Your task to perform on an android device: change the clock style Image 0: 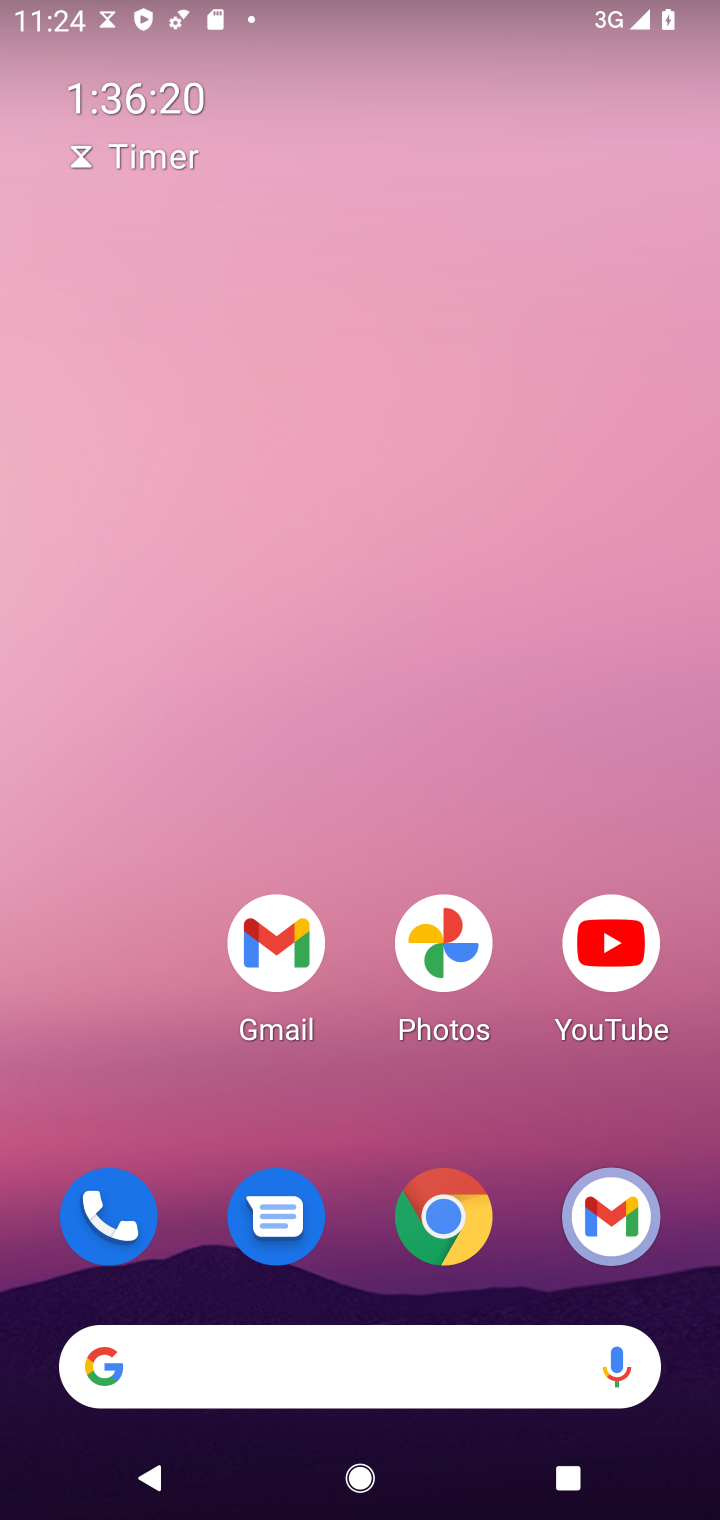
Step 0: drag from (130, 1065) to (244, 34)
Your task to perform on an android device: change the clock style Image 1: 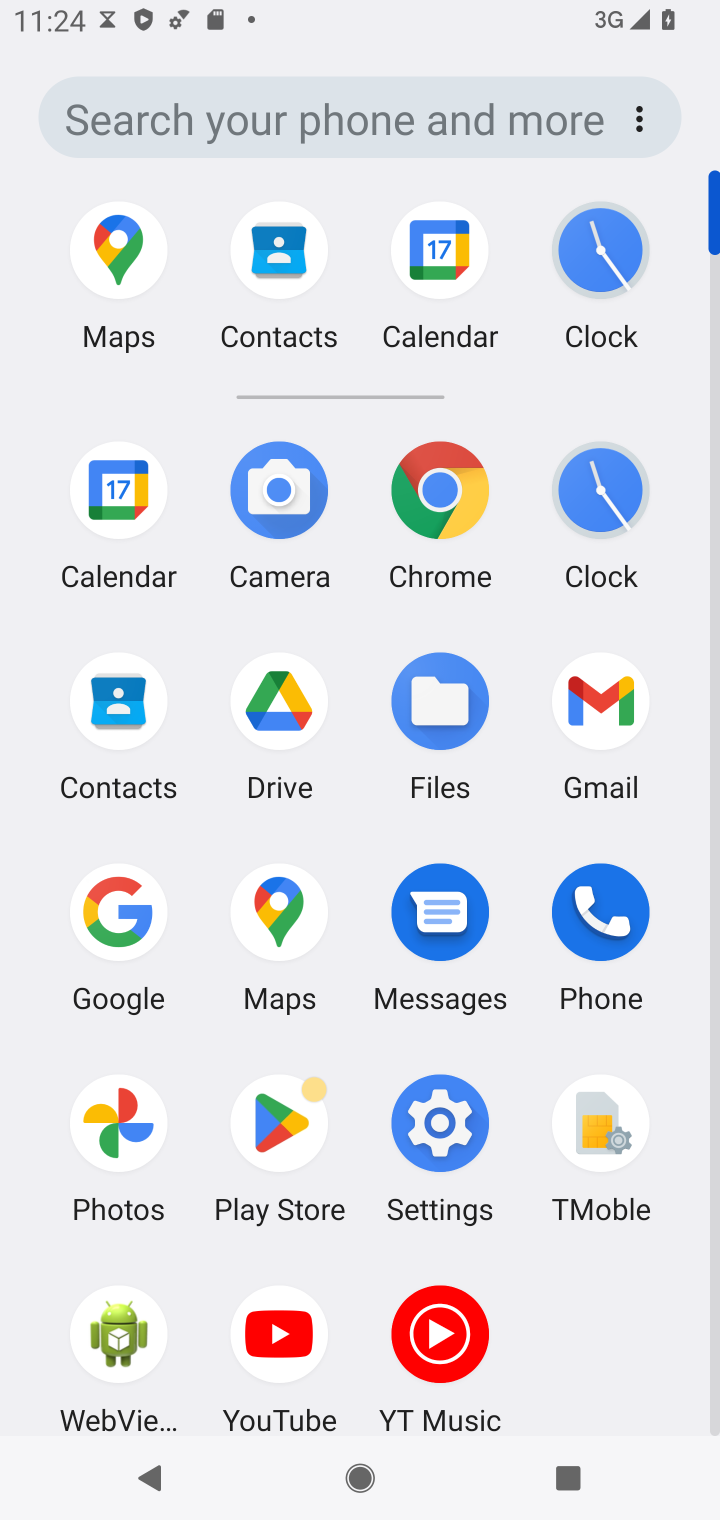
Step 1: click (587, 511)
Your task to perform on an android device: change the clock style Image 2: 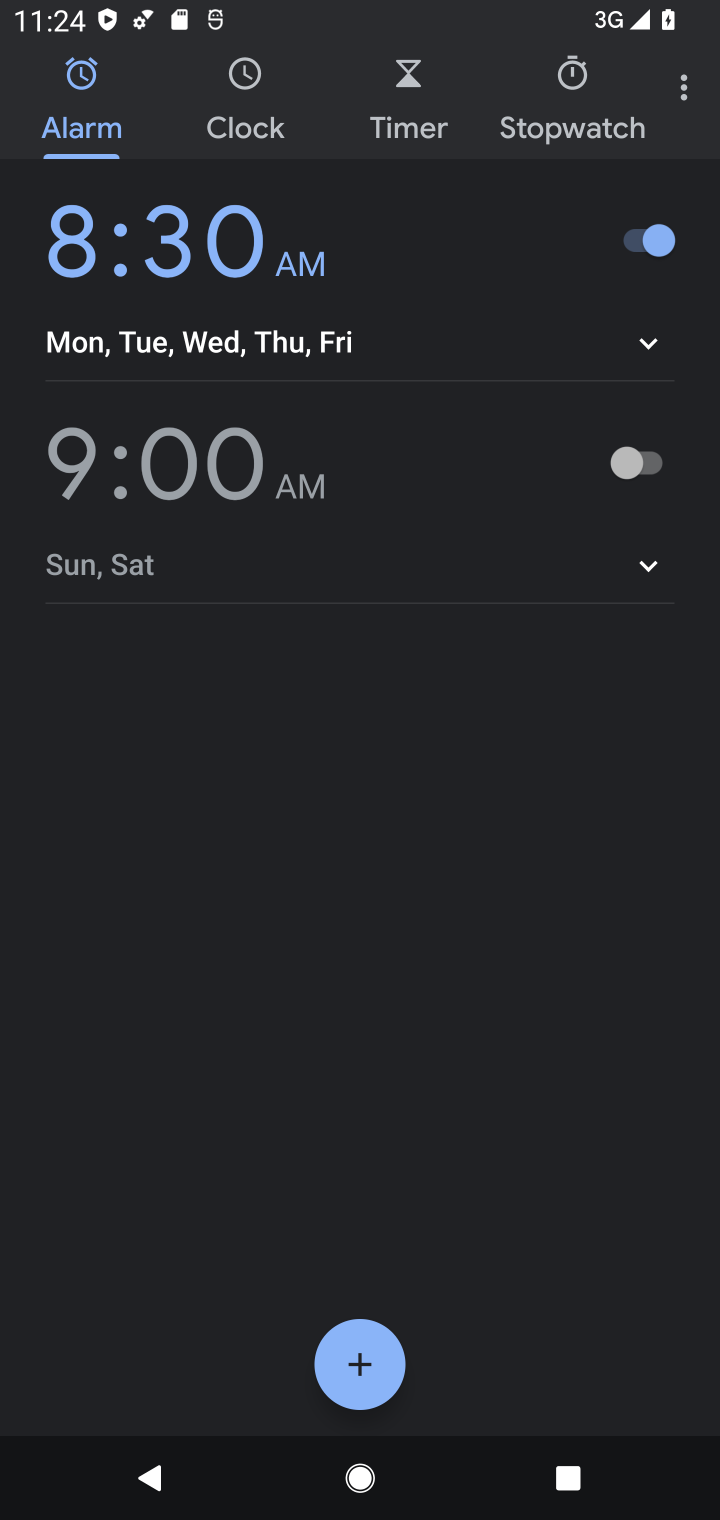
Step 2: click (689, 85)
Your task to perform on an android device: change the clock style Image 3: 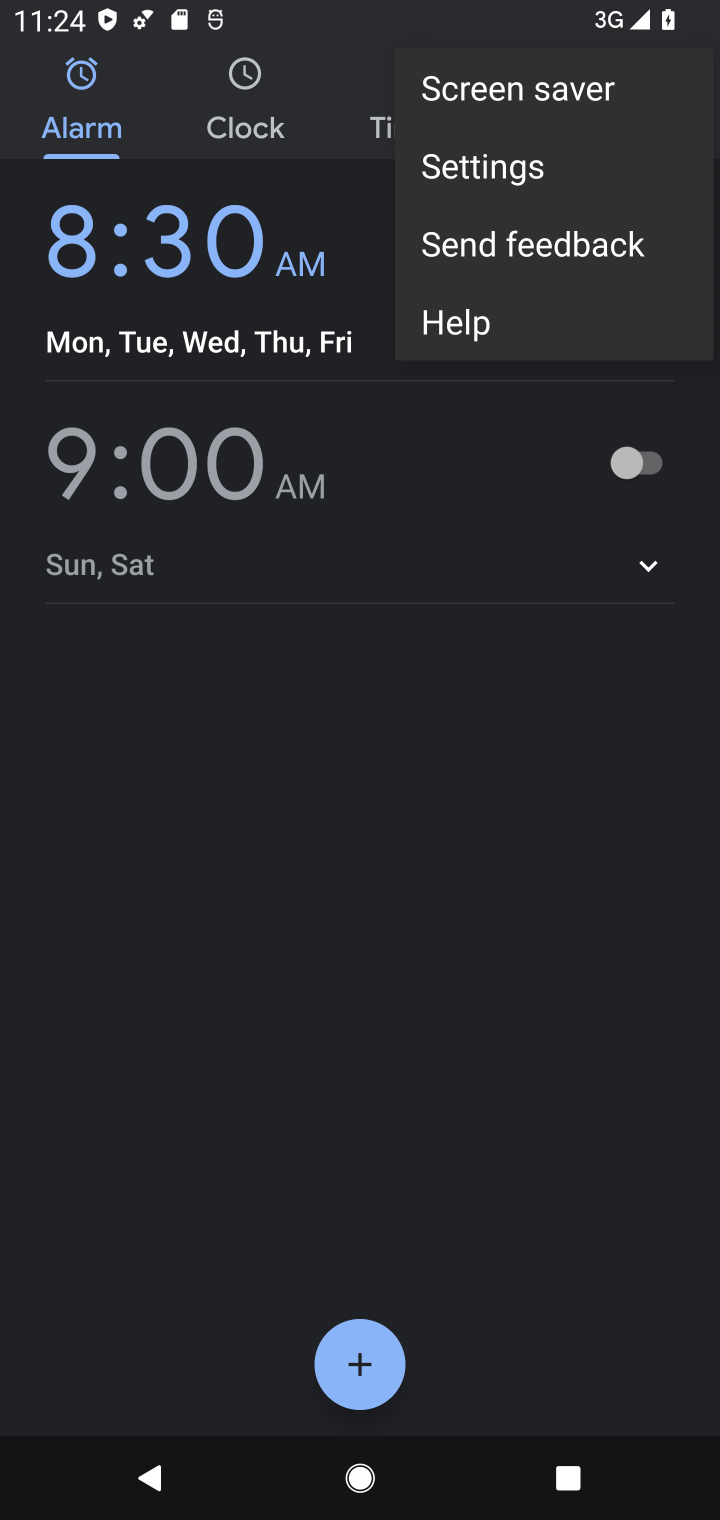
Step 3: click (547, 173)
Your task to perform on an android device: change the clock style Image 4: 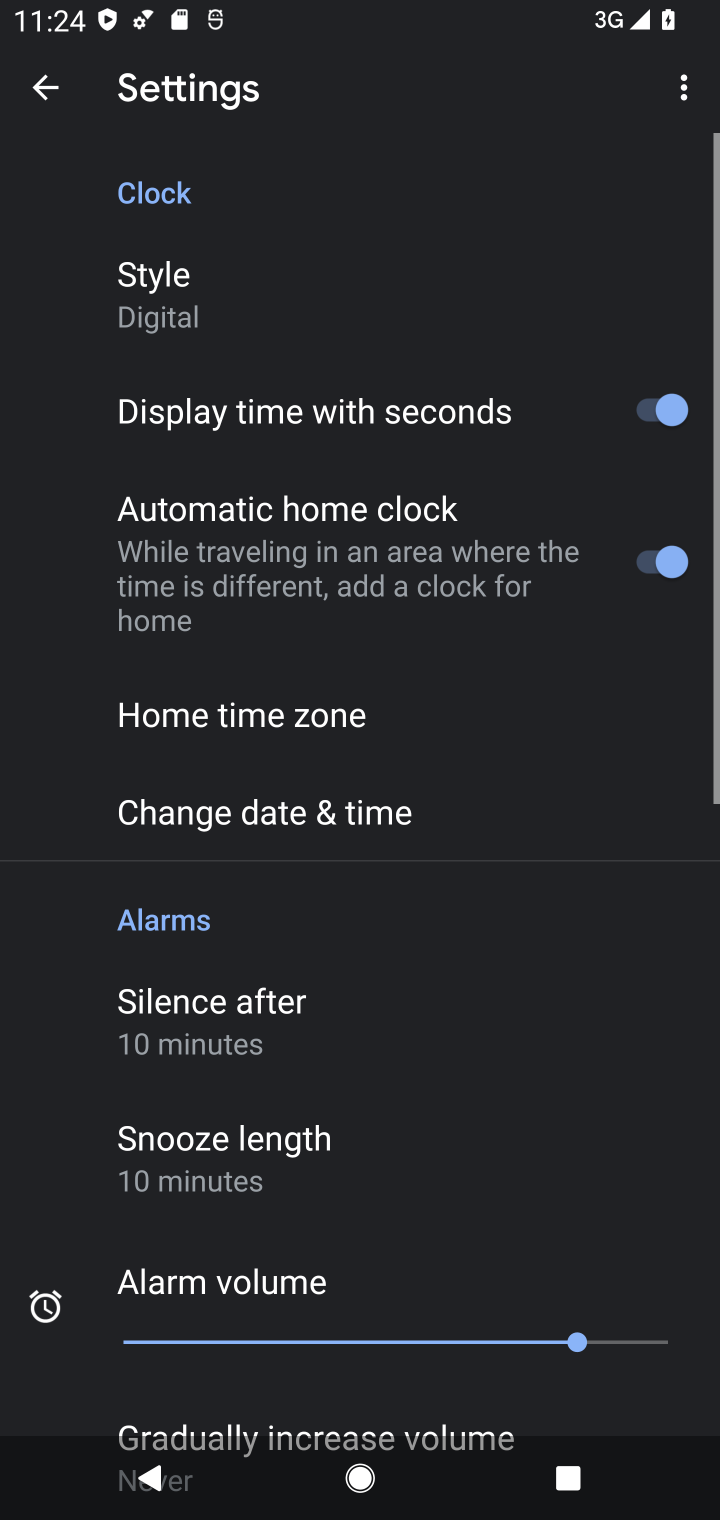
Step 4: click (185, 323)
Your task to perform on an android device: change the clock style Image 5: 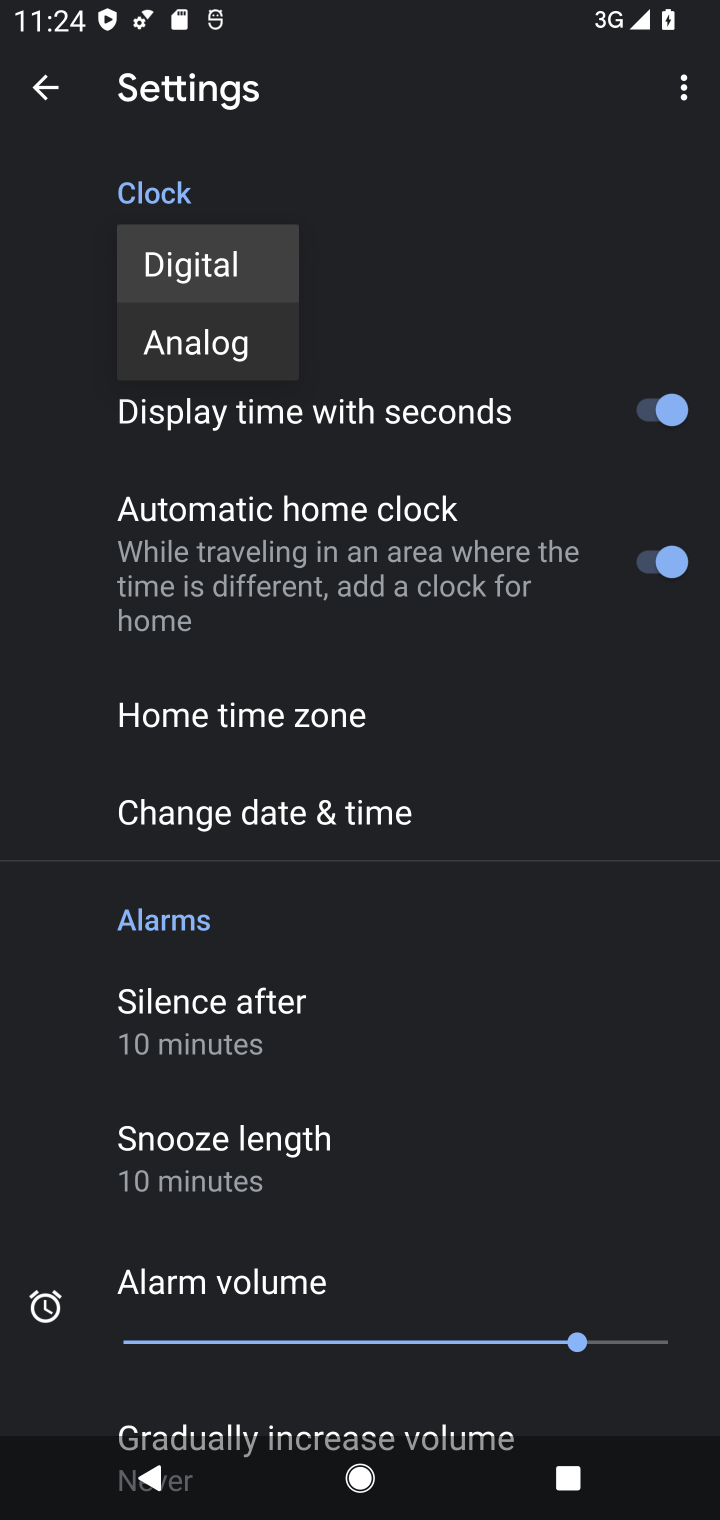
Step 5: click (152, 378)
Your task to perform on an android device: change the clock style Image 6: 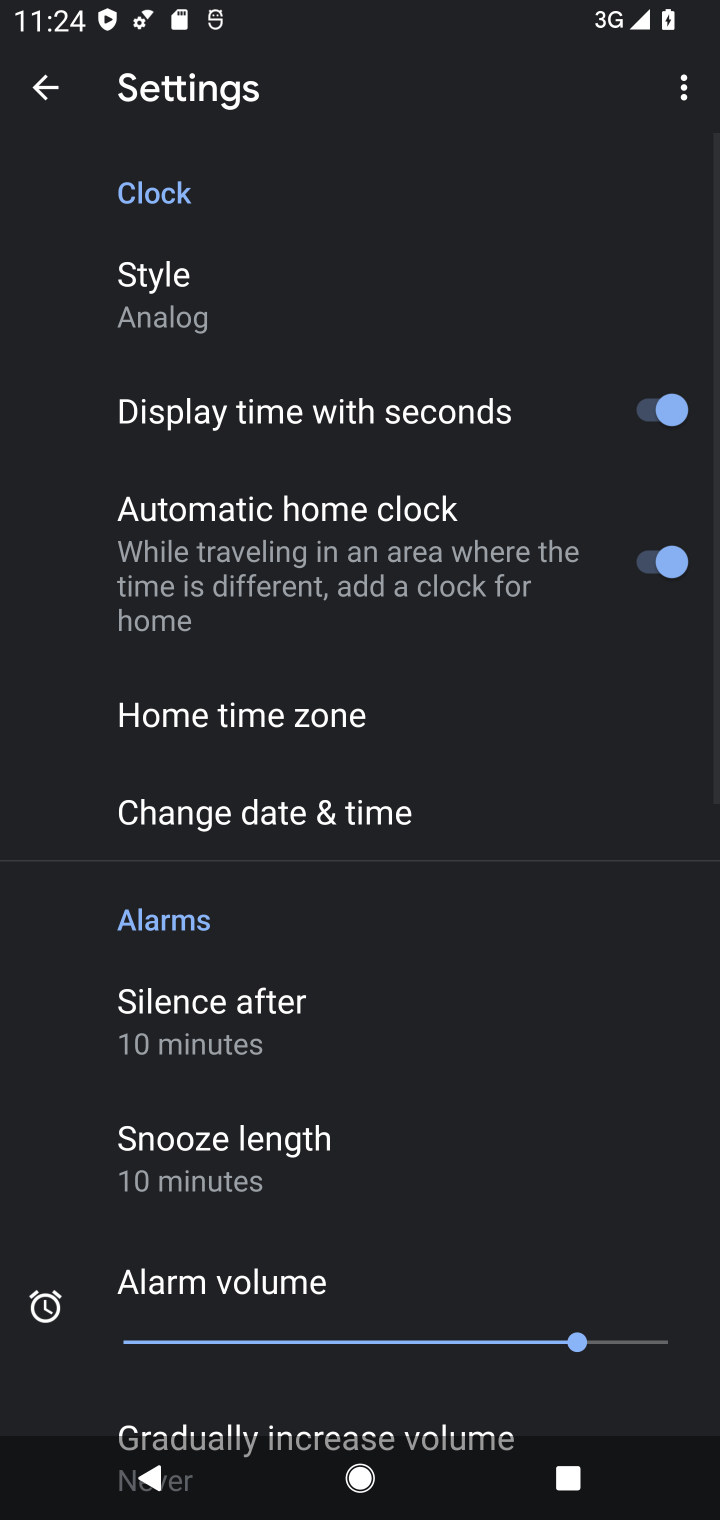
Step 6: task complete